Your task to perform on an android device: Open Google Chrome and click the shortcut for Amazon.com Image 0: 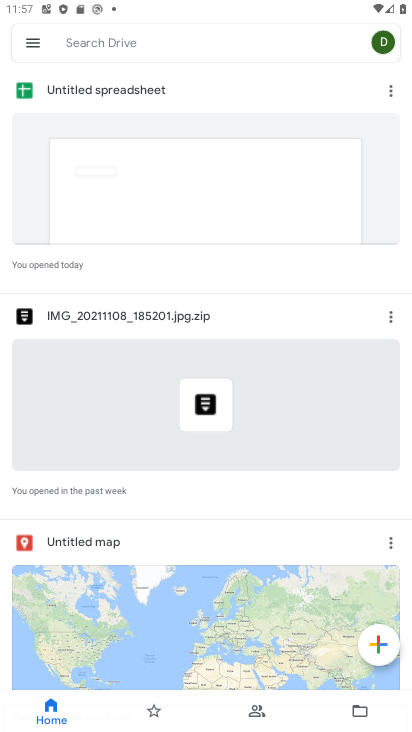
Step 0: press home button
Your task to perform on an android device: Open Google Chrome and click the shortcut for Amazon.com Image 1: 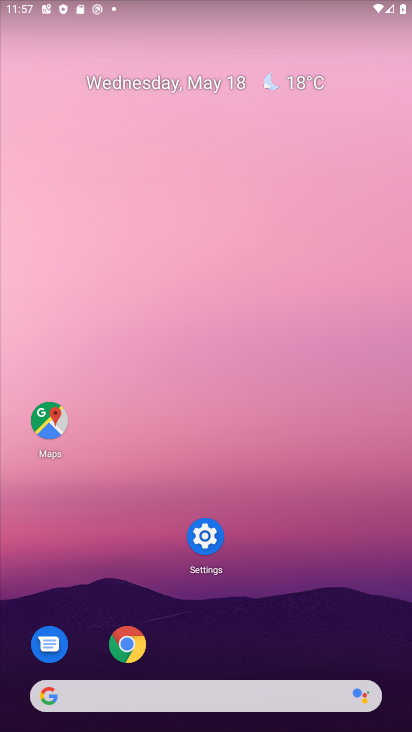
Step 1: click (127, 662)
Your task to perform on an android device: Open Google Chrome and click the shortcut for Amazon.com Image 2: 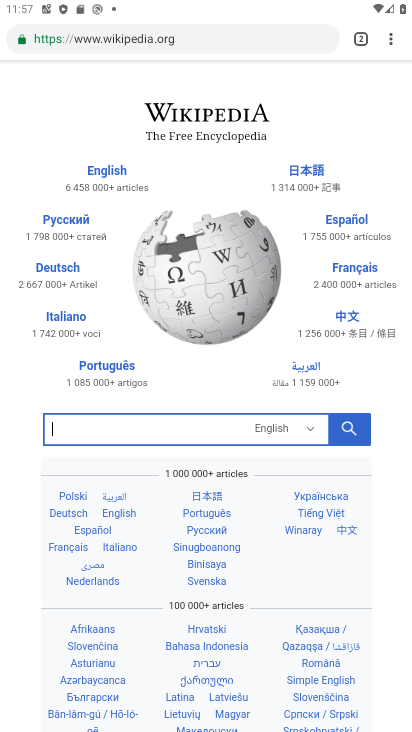
Step 2: click (185, 33)
Your task to perform on an android device: Open Google Chrome and click the shortcut for Amazon.com Image 3: 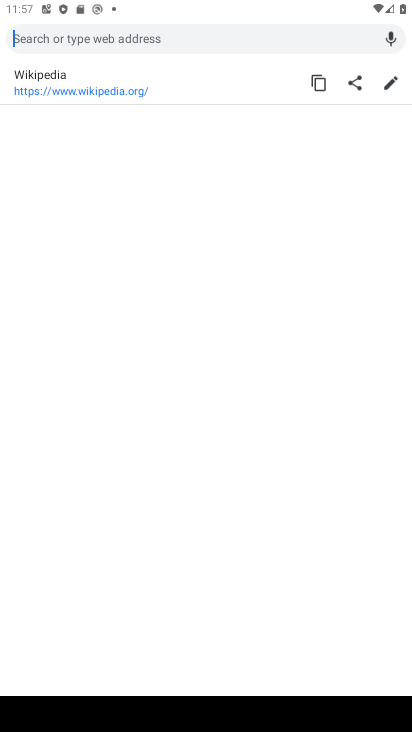
Step 3: type "amazon"
Your task to perform on an android device: Open Google Chrome and click the shortcut for Amazon.com Image 4: 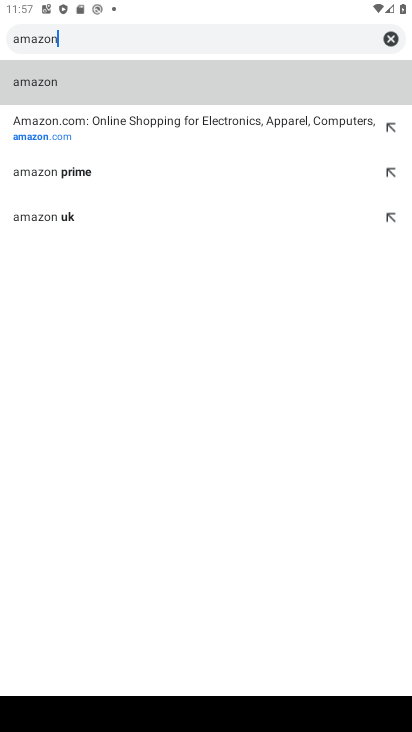
Step 4: click (32, 135)
Your task to perform on an android device: Open Google Chrome and click the shortcut for Amazon.com Image 5: 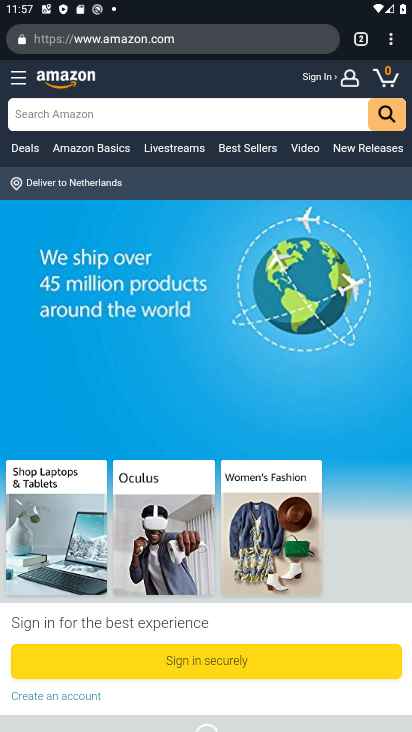
Step 5: task complete